Your task to perform on an android device: Open calendar and show me the second week of next month Image 0: 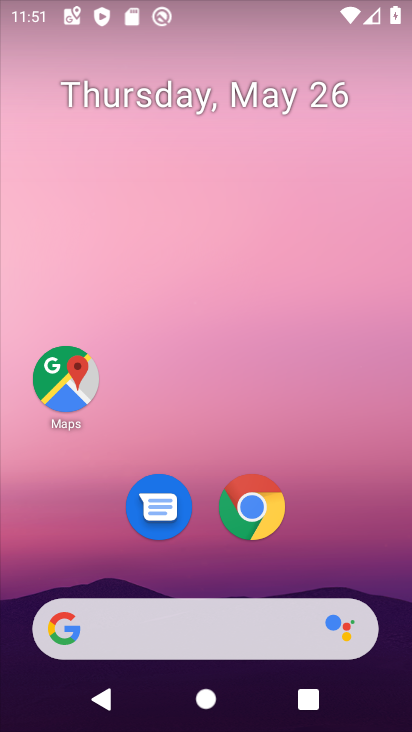
Step 0: drag from (344, 522) to (286, 125)
Your task to perform on an android device: Open calendar and show me the second week of next month Image 1: 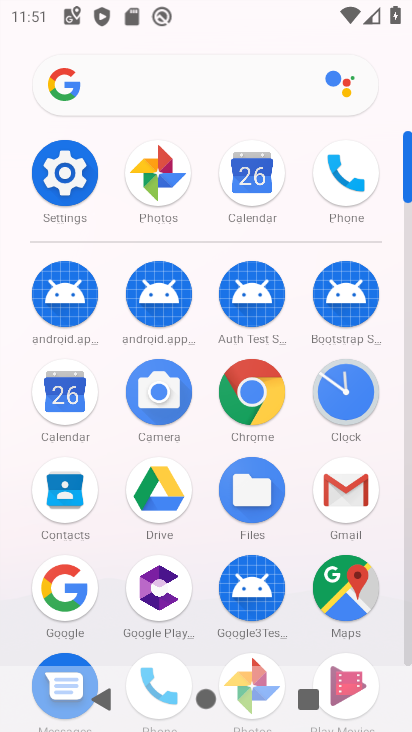
Step 1: click (78, 388)
Your task to perform on an android device: Open calendar and show me the second week of next month Image 2: 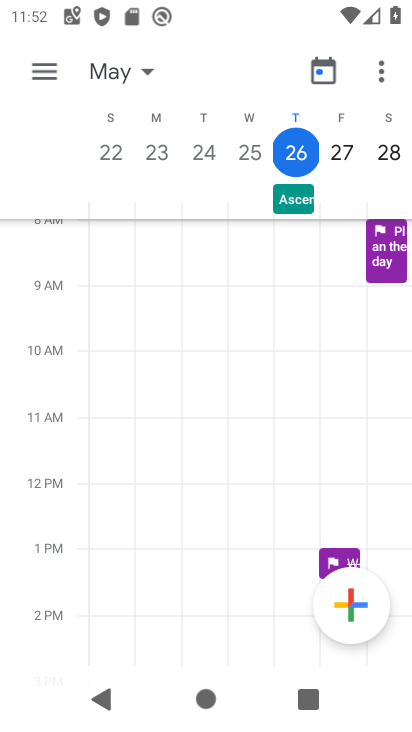
Step 2: click (143, 77)
Your task to perform on an android device: Open calendar and show me the second week of next month Image 3: 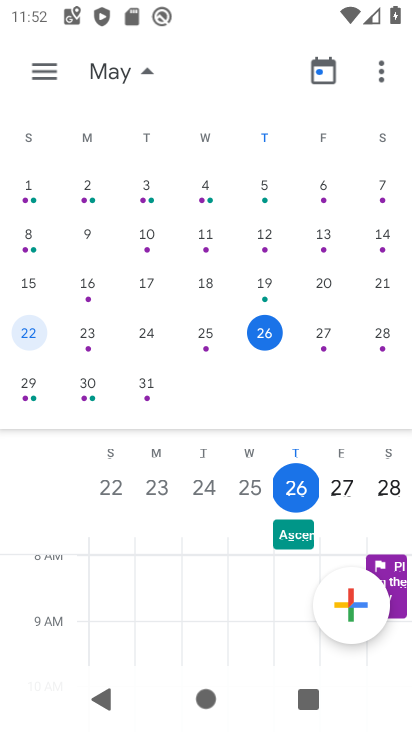
Step 3: drag from (361, 286) to (4, 268)
Your task to perform on an android device: Open calendar and show me the second week of next month Image 4: 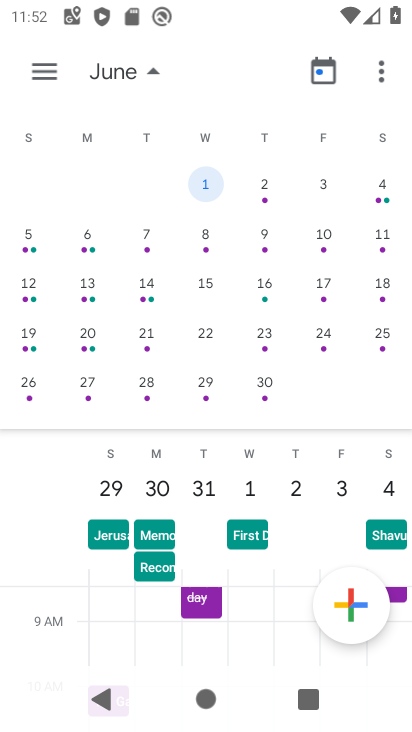
Step 4: click (31, 283)
Your task to perform on an android device: Open calendar and show me the second week of next month Image 5: 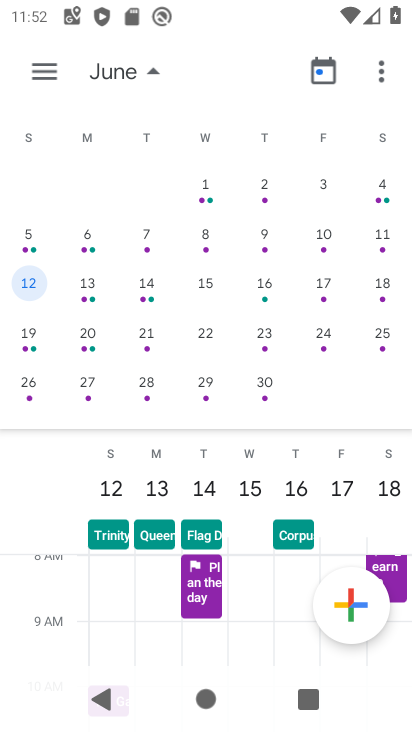
Step 5: task complete